Your task to perform on an android device: turn pop-ups off in chrome Image 0: 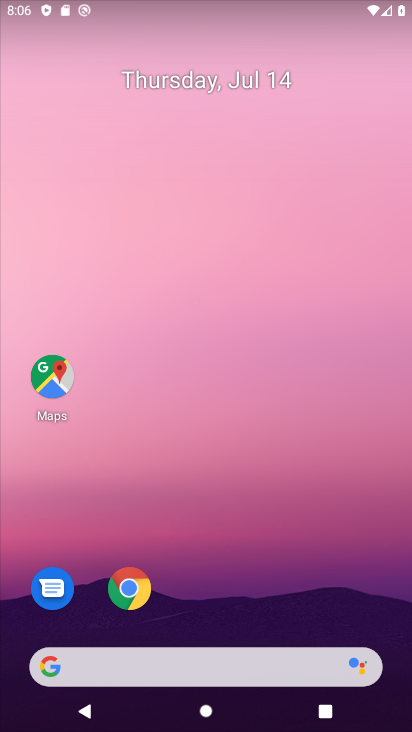
Step 0: click (136, 585)
Your task to perform on an android device: turn pop-ups off in chrome Image 1: 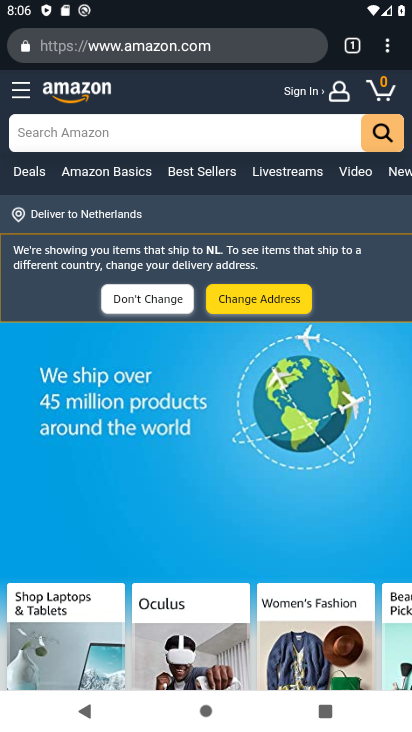
Step 1: click (386, 54)
Your task to perform on an android device: turn pop-ups off in chrome Image 2: 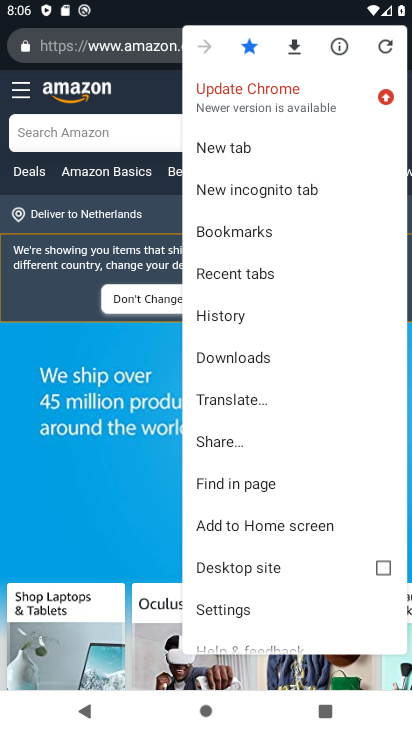
Step 2: click (238, 609)
Your task to perform on an android device: turn pop-ups off in chrome Image 3: 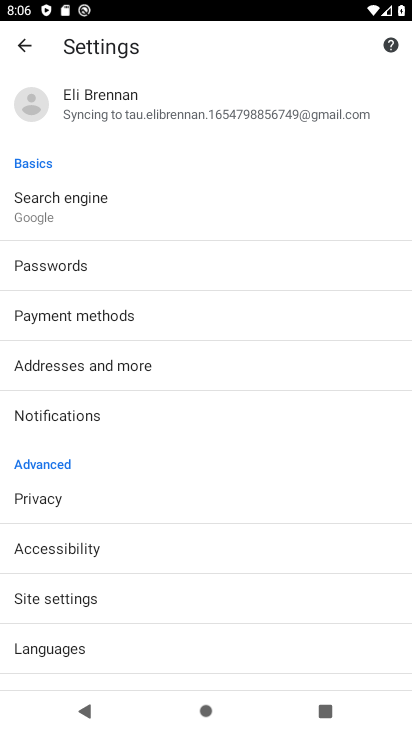
Step 3: drag from (77, 595) to (80, 533)
Your task to perform on an android device: turn pop-ups off in chrome Image 4: 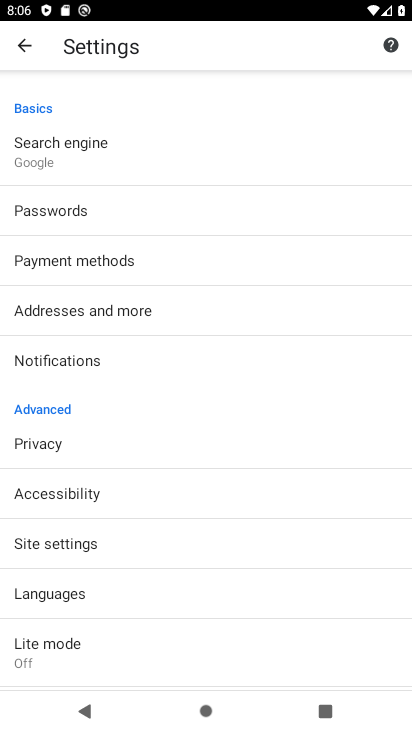
Step 4: click (81, 547)
Your task to perform on an android device: turn pop-ups off in chrome Image 5: 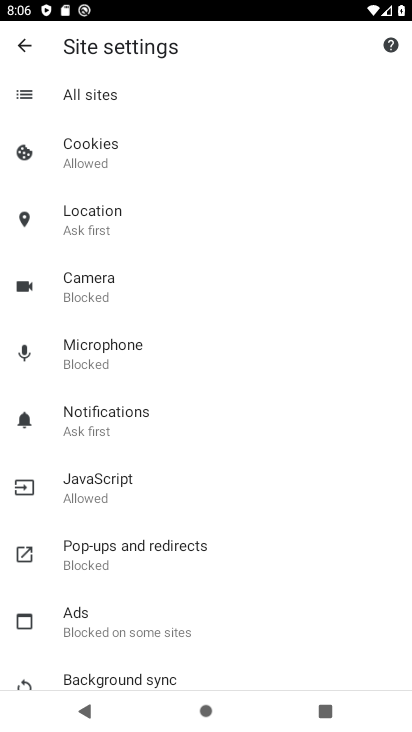
Step 5: click (130, 552)
Your task to perform on an android device: turn pop-ups off in chrome Image 6: 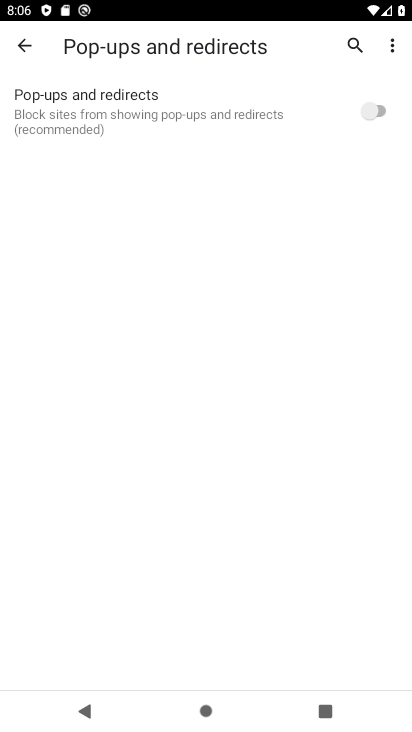
Step 6: task complete